Your task to perform on an android device: Go to internet settings Image 0: 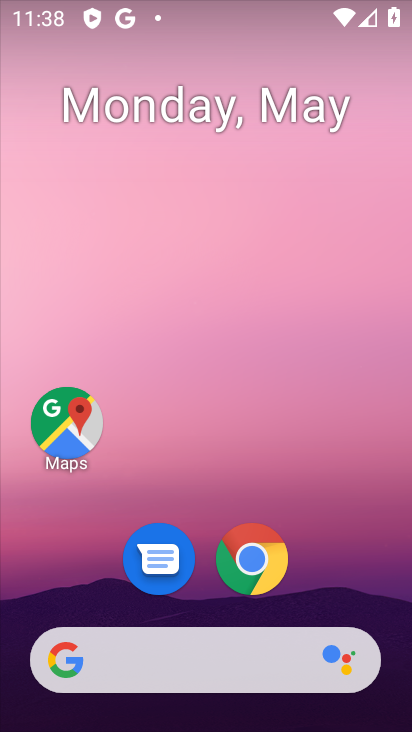
Step 0: drag from (337, 559) to (324, 113)
Your task to perform on an android device: Go to internet settings Image 1: 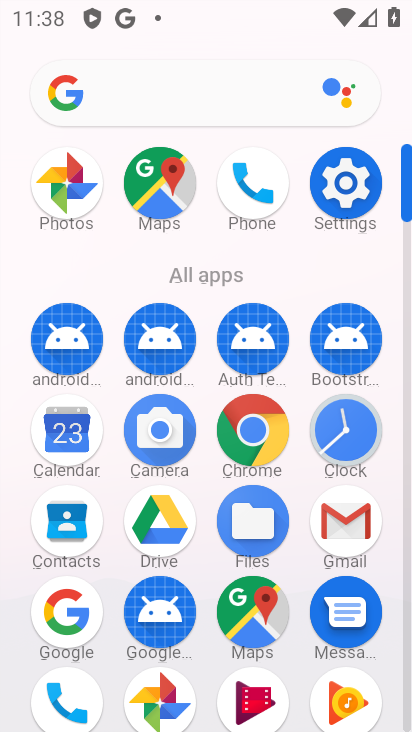
Step 1: click (344, 216)
Your task to perform on an android device: Go to internet settings Image 2: 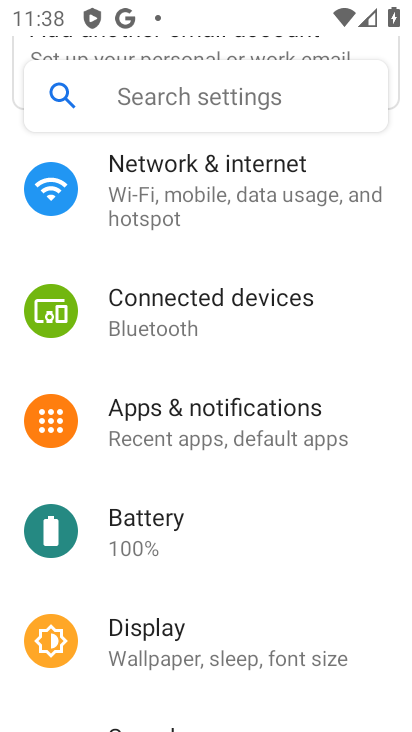
Step 2: click (305, 224)
Your task to perform on an android device: Go to internet settings Image 3: 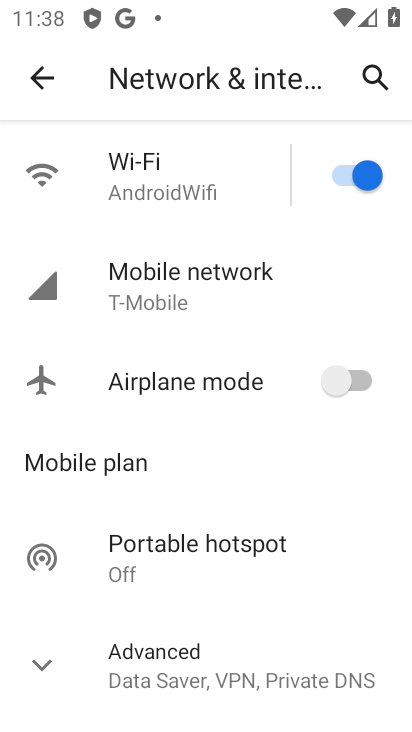
Step 3: task complete